Your task to perform on an android device: Open Chrome and go to settings Image 0: 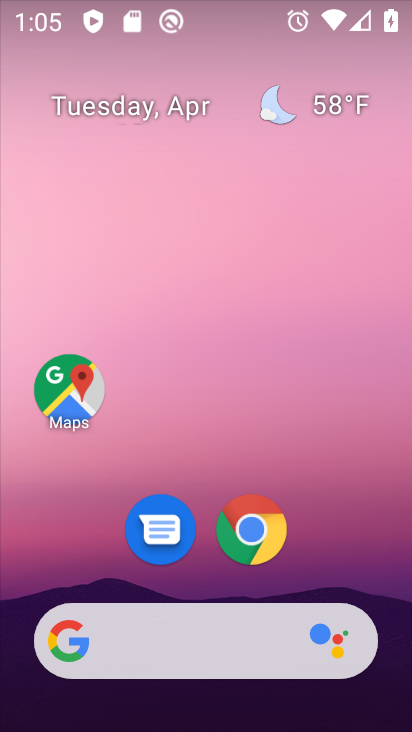
Step 0: drag from (395, 615) to (253, 96)
Your task to perform on an android device: Open Chrome and go to settings Image 1: 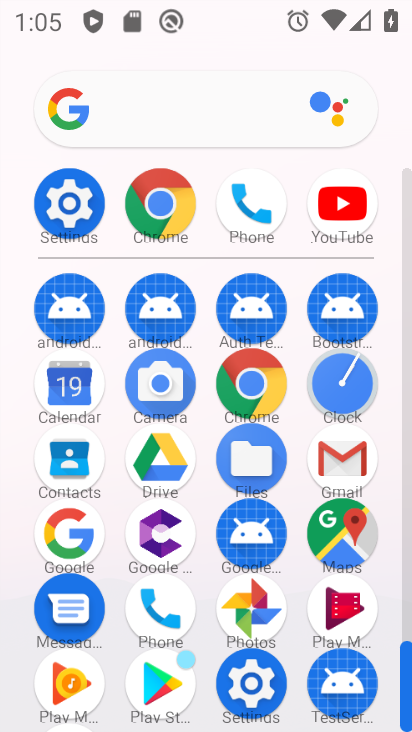
Step 1: click (257, 692)
Your task to perform on an android device: Open Chrome and go to settings Image 2: 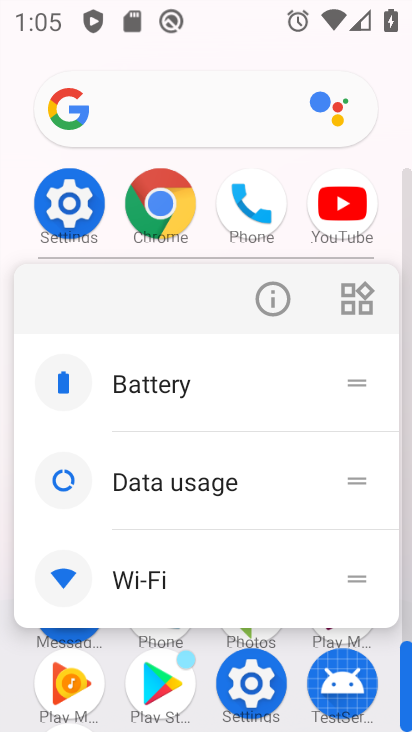
Step 2: click (146, 237)
Your task to perform on an android device: Open Chrome and go to settings Image 3: 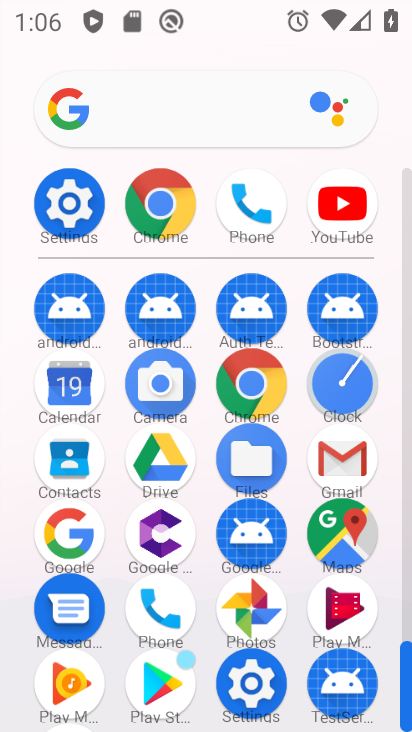
Step 3: click (173, 213)
Your task to perform on an android device: Open Chrome and go to settings Image 4: 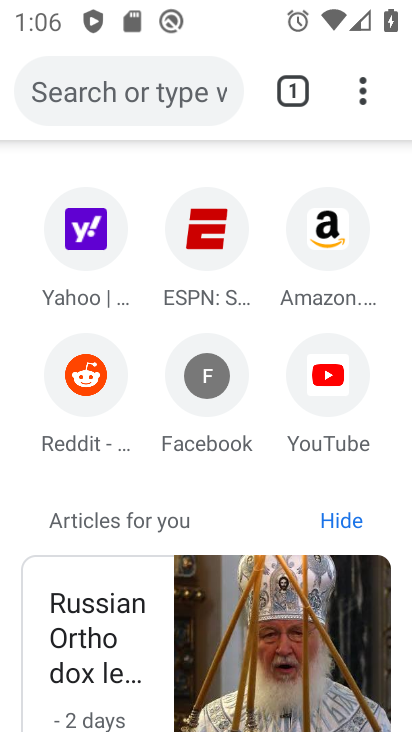
Step 4: click (362, 88)
Your task to perform on an android device: Open Chrome and go to settings Image 5: 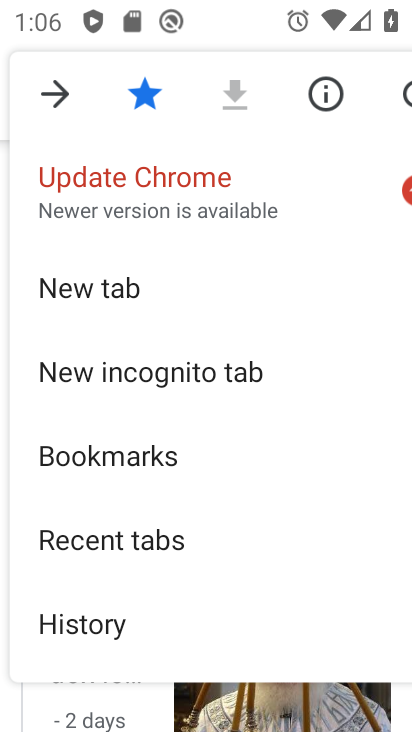
Step 5: drag from (159, 628) to (216, 178)
Your task to perform on an android device: Open Chrome and go to settings Image 6: 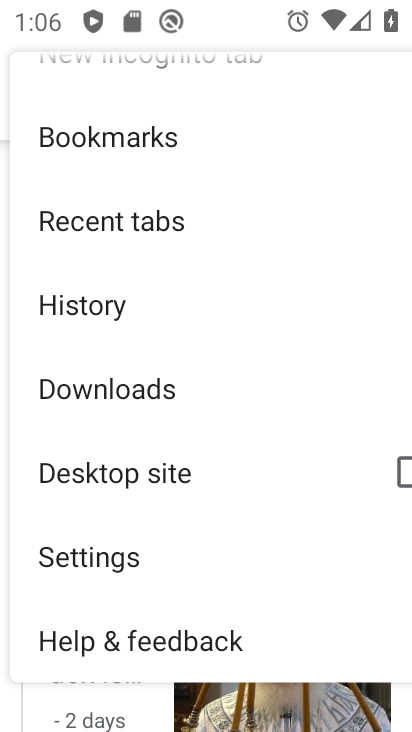
Step 6: click (171, 543)
Your task to perform on an android device: Open Chrome and go to settings Image 7: 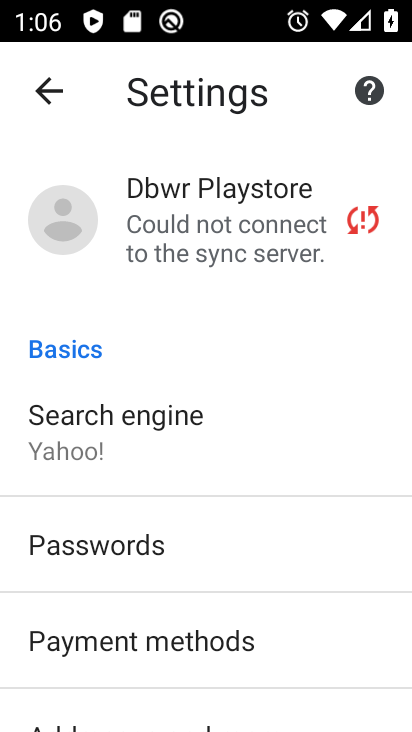
Step 7: task complete